Your task to perform on an android device: turn on bluetooth scan Image 0: 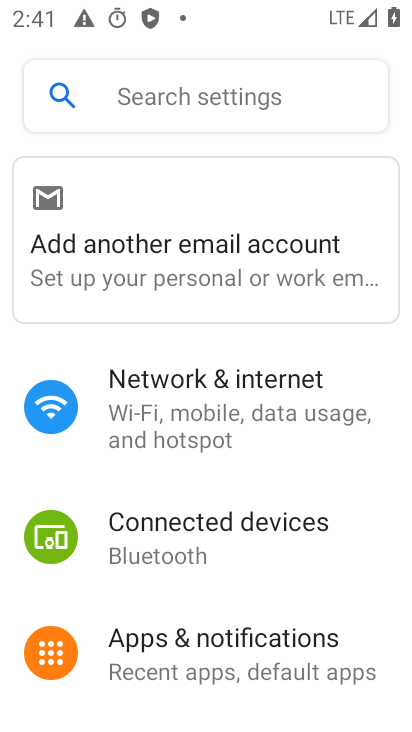
Step 0: press home button
Your task to perform on an android device: turn on bluetooth scan Image 1: 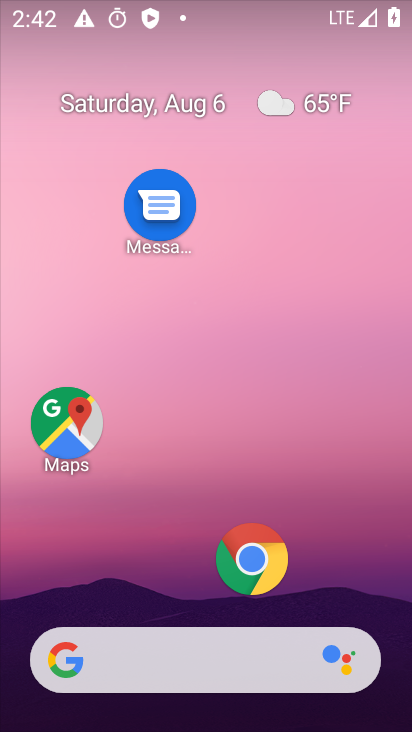
Step 1: drag from (192, 534) to (259, 44)
Your task to perform on an android device: turn on bluetooth scan Image 2: 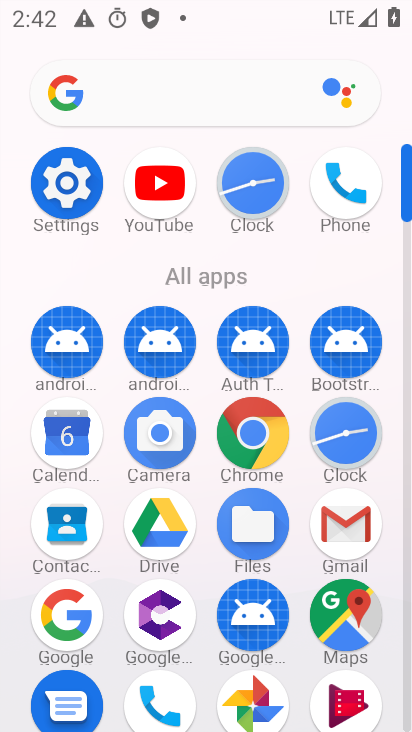
Step 2: click (69, 190)
Your task to perform on an android device: turn on bluetooth scan Image 3: 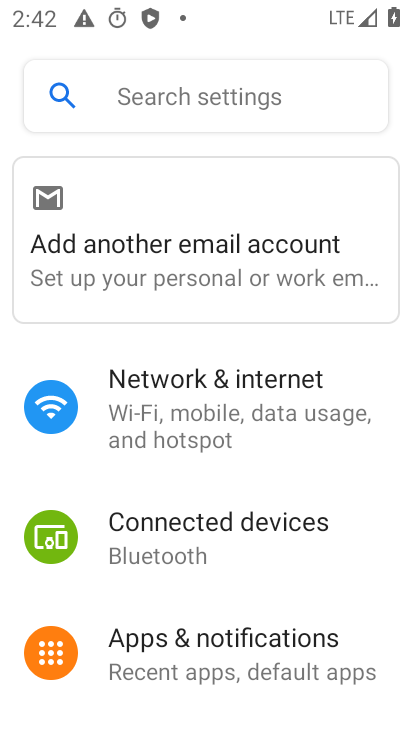
Step 3: drag from (220, 575) to (240, 268)
Your task to perform on an android device: turn on bluetooth scan Image 4: 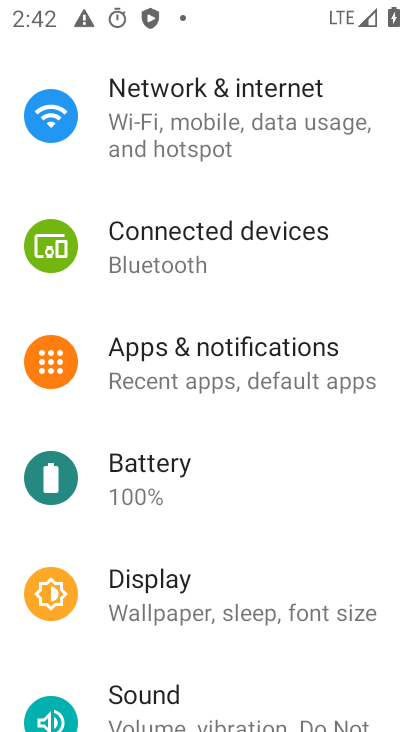
Step 4: drag from (191, 613) to (260, 135)
Your task to perform on an android device: turn on bluetooth scan Image 5: 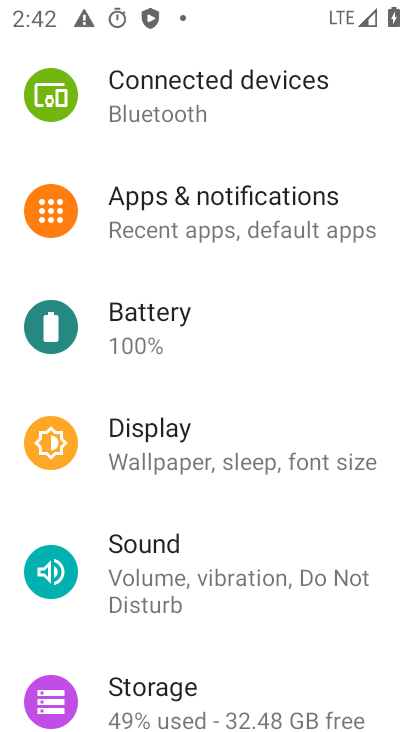
Step 5: drag from (219, 634) to (223, 295)
Your task to perform on an android device: turn on bluetooth scan Image 6: 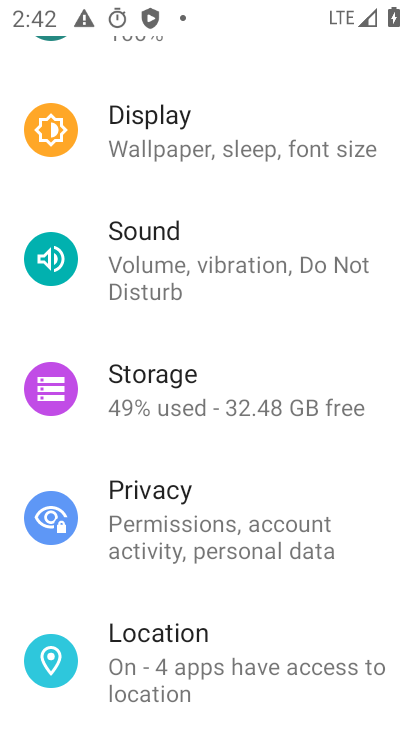
Step 6: click (185, 695)
Your task to perform on an android device: turn on bluetooth scan Image 7: 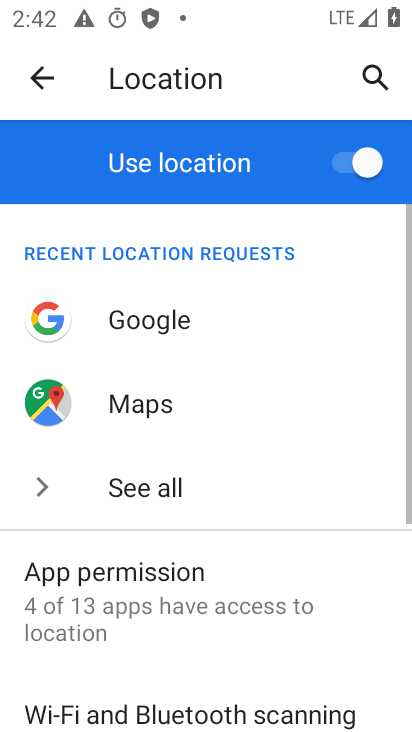
Step 7: drag from (236, 608) to (211, 181)
Your task to perform on an android device: turn on bluetooth scan Image 8: 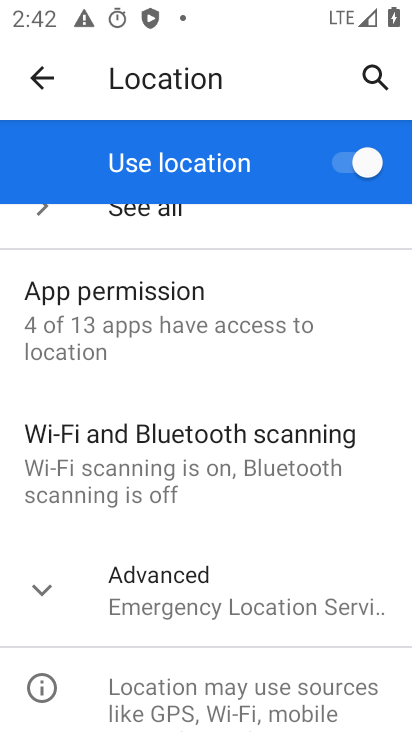
Step 8: drag from (145, 625) to (194, 180)
Your task to perform on an android device: turn on bluetooth scan Image 9: 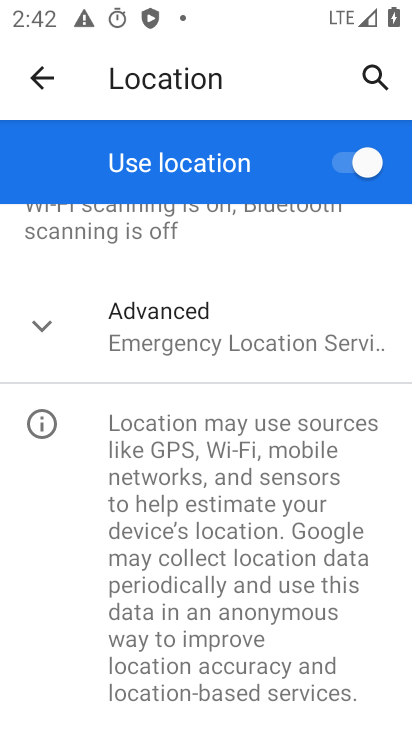
Step 9: drag from (170, 318) to (170, 712)
Your task to perform on an android device: turn on bluetooth scan Image 10: 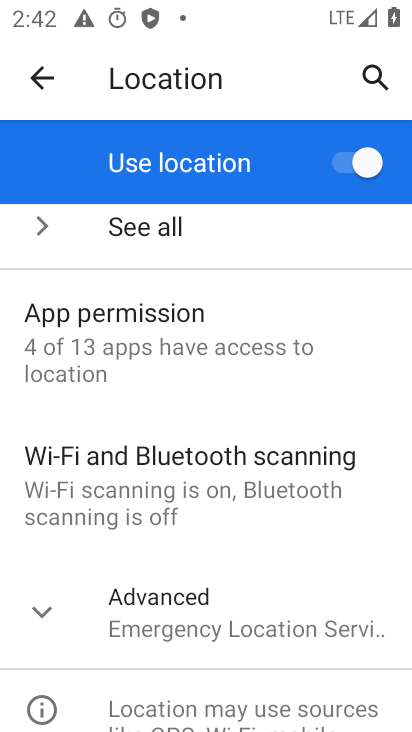
Step 10: click (142, 472)
Your task to perform on an android device: turn on bluetooth scan Image 11: 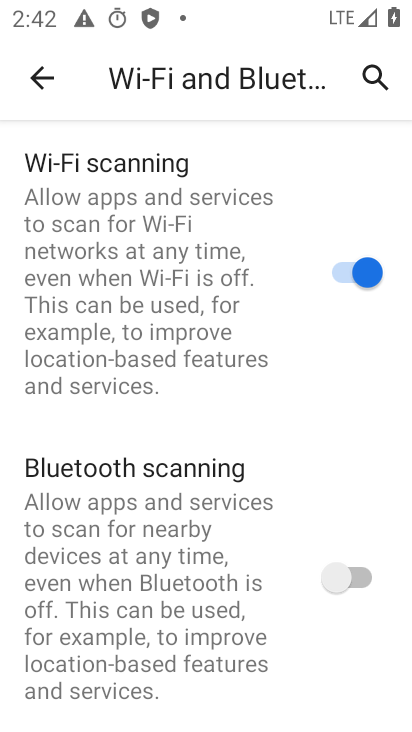
Step 11: click (366, 590)
Your task to perform on an android device: turn on bluetooth scan Image 12: 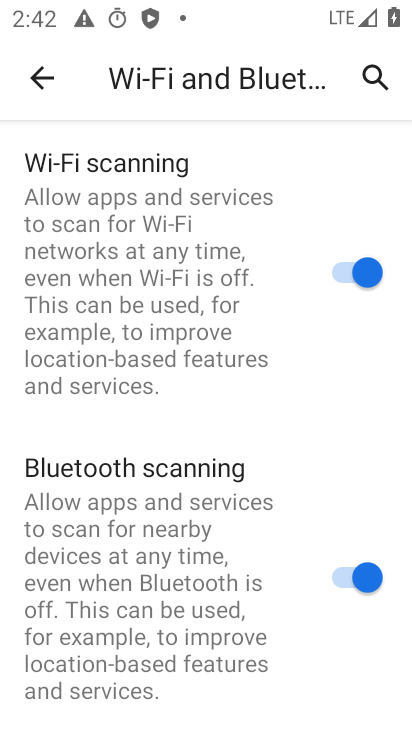
Step 12: task complete